Your task to perform on an android device: Open the stopwatch Image 0: 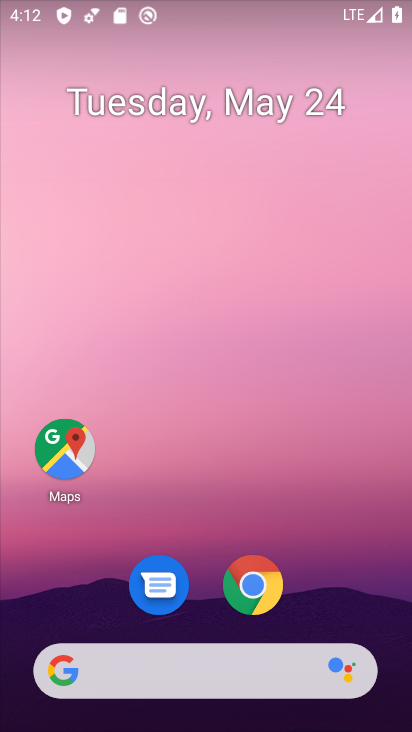
Step 0: drag from (288, 510) to (276, 64)
Your task to perform on an android device: Open the stopwatch Image 1: 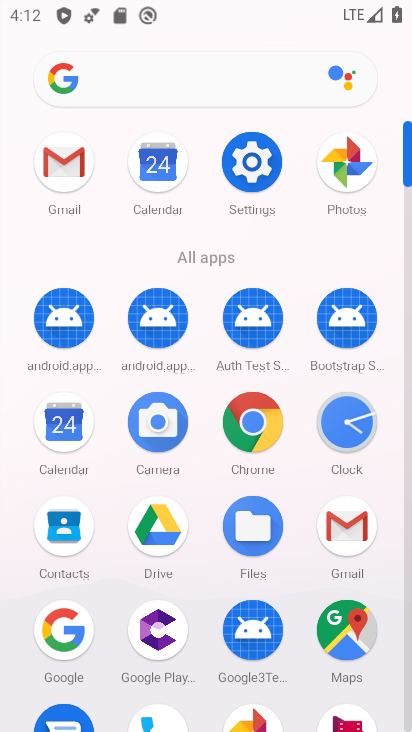
Step 1: click (338, 420)
Your task to perform on an android device: Open the stopwatch Image 2: 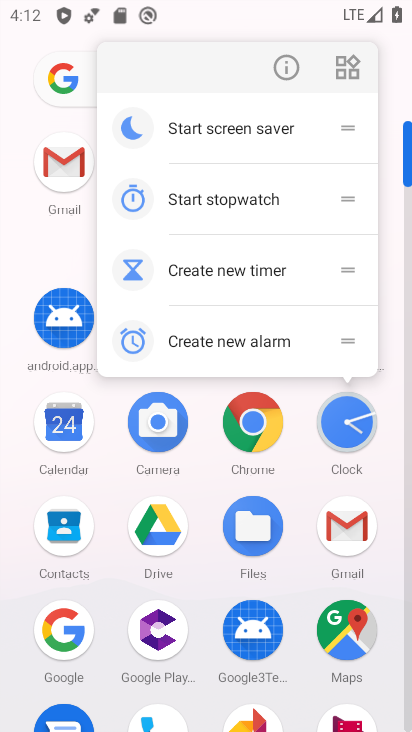
Step 2: click (340, 420)
Your task to perform on an android device: Open the stopwatch Image 3: 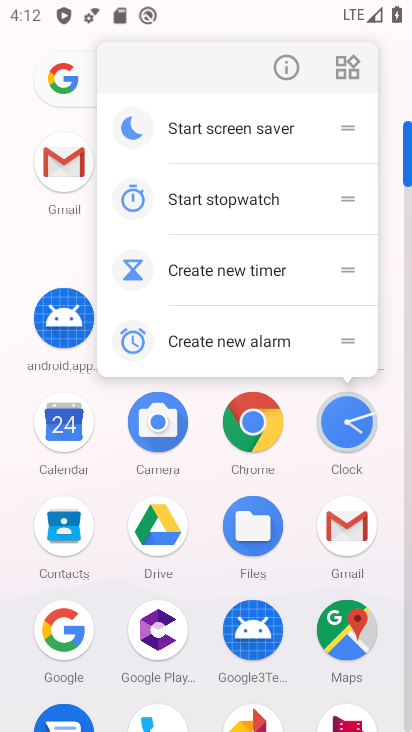
Step 3: click (350, 413)
Your task to perform on an android device: Open the stopwatch Image 4: 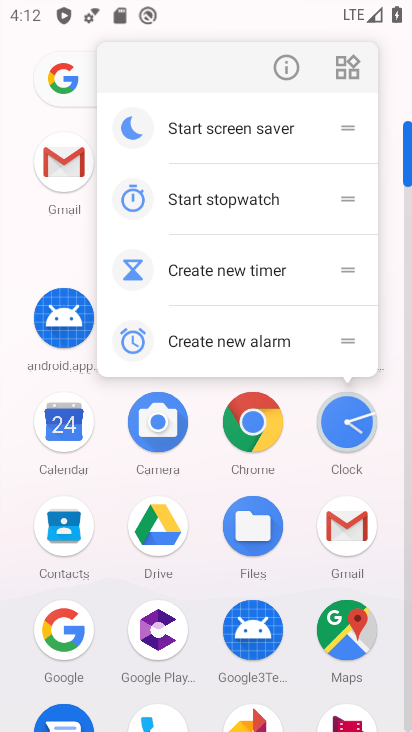
Step 4: click (350, 424)
Your task to perform on an android device: Open the stopwatch Image 5: 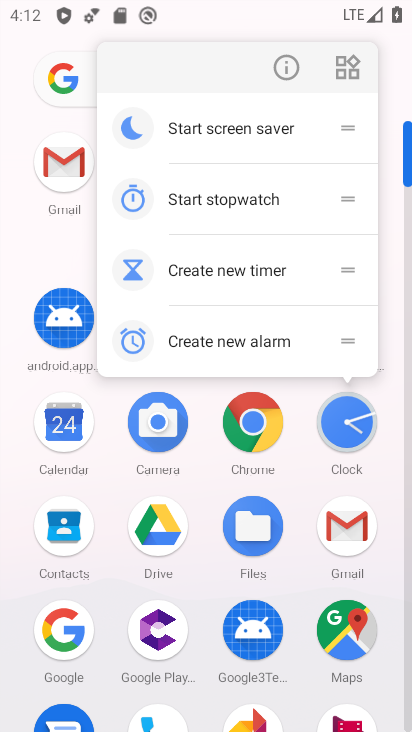
Step 5: click (351, 415)
Your task to perform on an android device: Open the stopwatch Image 6: 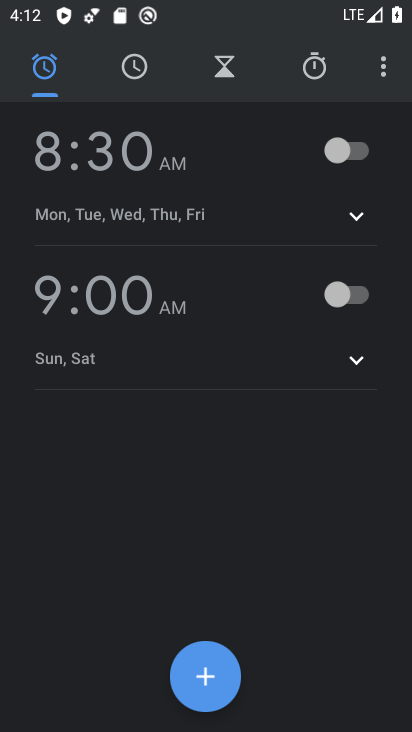
Step 6: click (312, 72)
Your task to perform on an android device: Open the stopwatch Image 7: 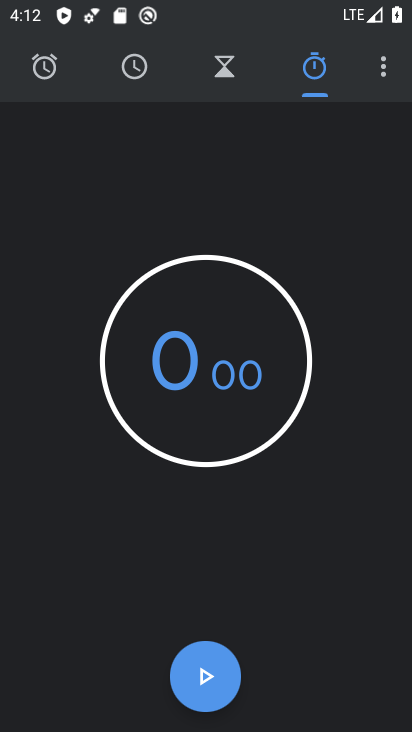
Step 7: task complete